Your task to perform on an android device: turn off javascript in the chrome app Image 0: 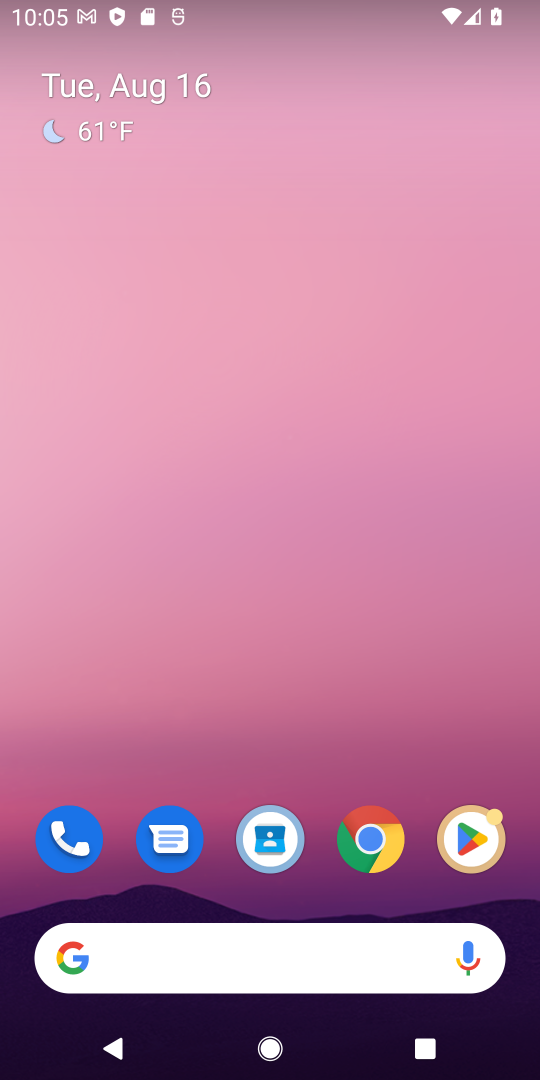
Step 0: click (371, 828)
Your task to perform on an android device: turn off javascript in the chrome app Image 1: 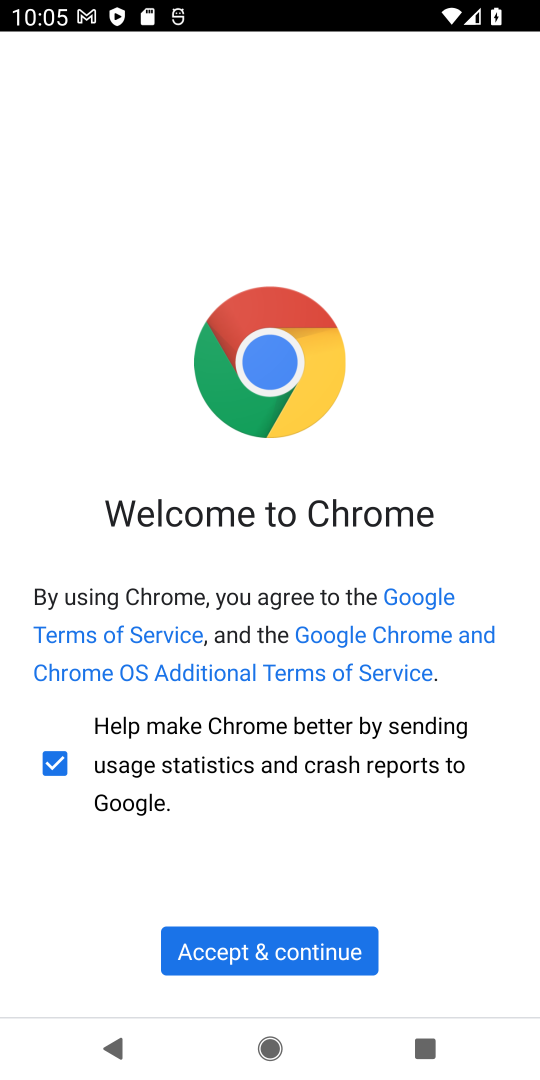
Step 1: click (313, 951)
Your task to perform on an android device: turn off javascript in the chrome app Image 2: 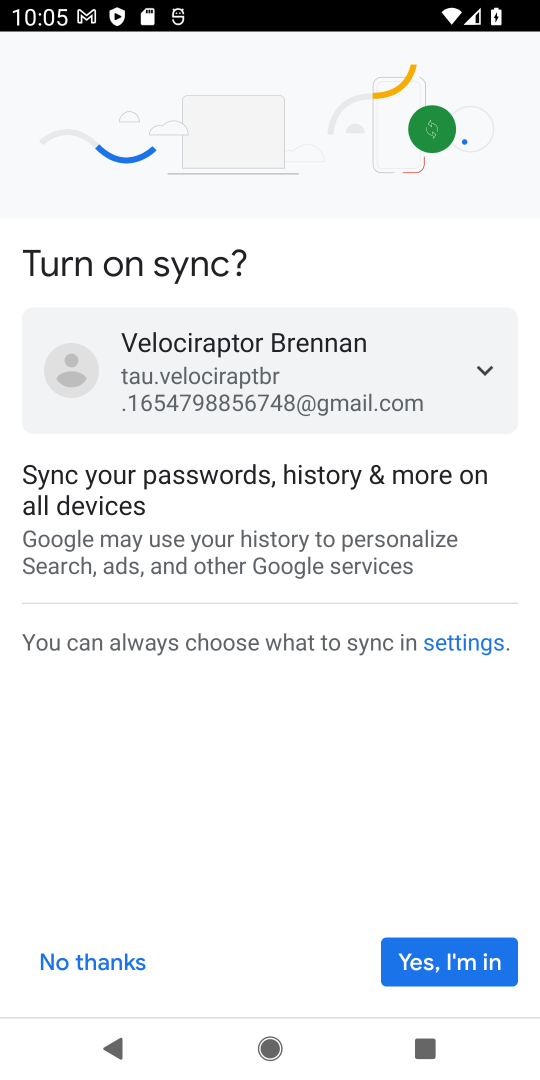
Step 2: click (439, 958)
Your task to perform on an android device: turn off javascript in the chrome app Image 3: 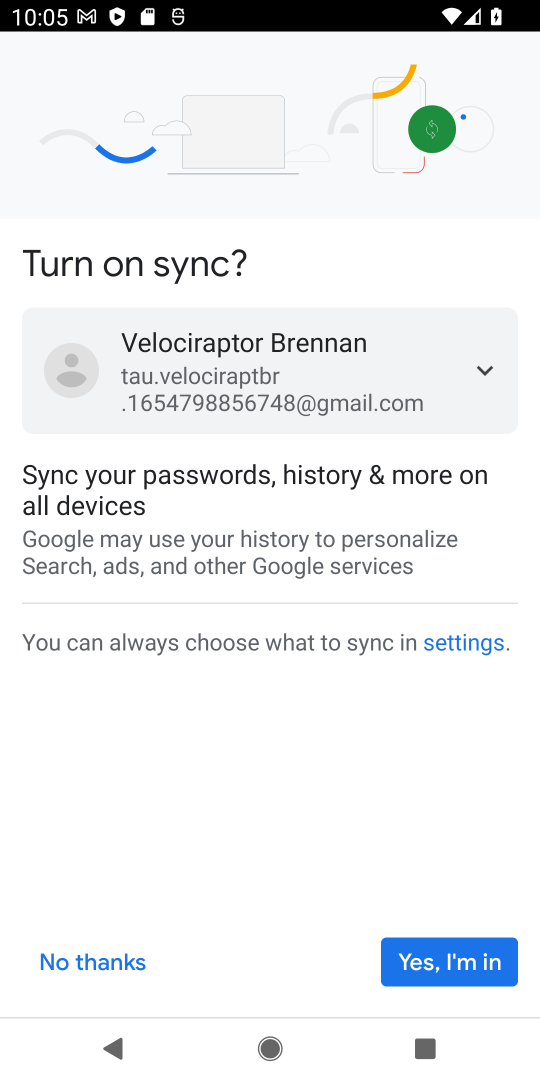
Step 3: click (437, 957)
Your task to perform on an android device: turn off javascript in the chrome app Image 4: 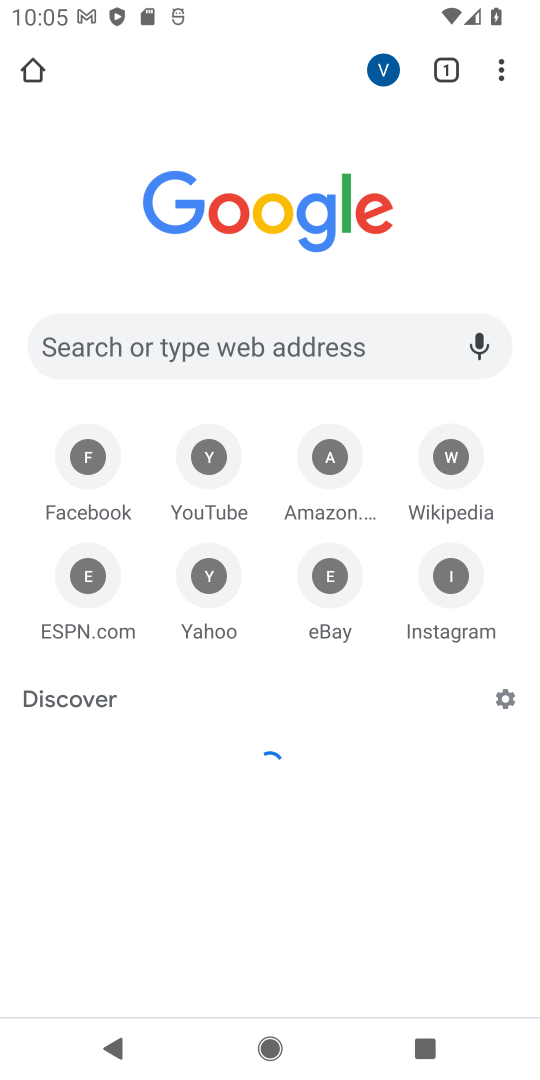
Step 4: click (436, 955)
Your task to perform on an android device: turn off javascript in the chrome app Image 5: 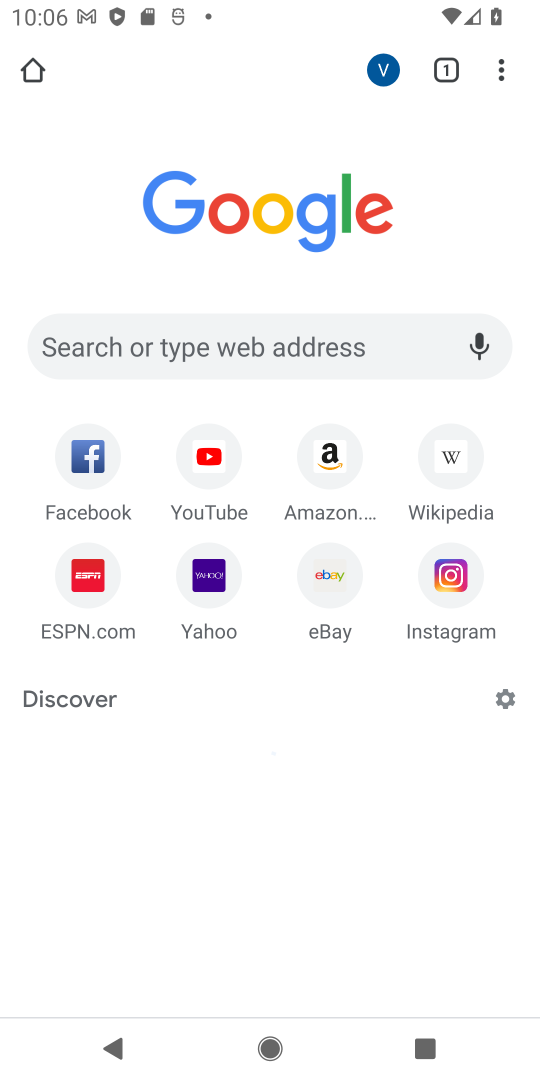
Step 5: click (502, 57)
Your task to perform on an android device: turn off javascript in the chrome app Image 6: 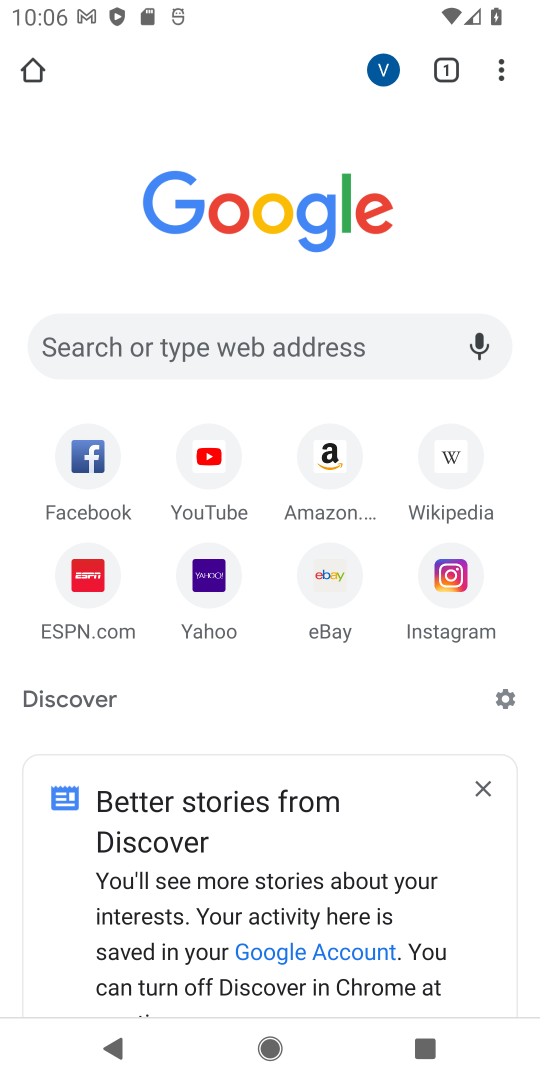
Step 6: click (498, 68)
Your task to perform on an android device: turn off javascript in the chrome app Image 7: 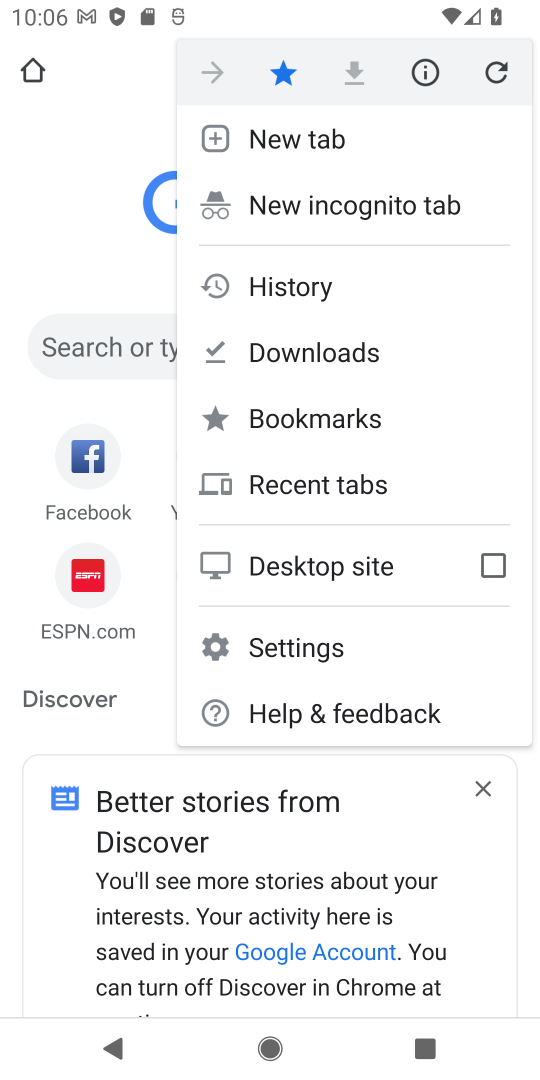
Step 7: click (296, 653)
Your task to perform on an android device: turn off javascript in the chrome app Image 8: 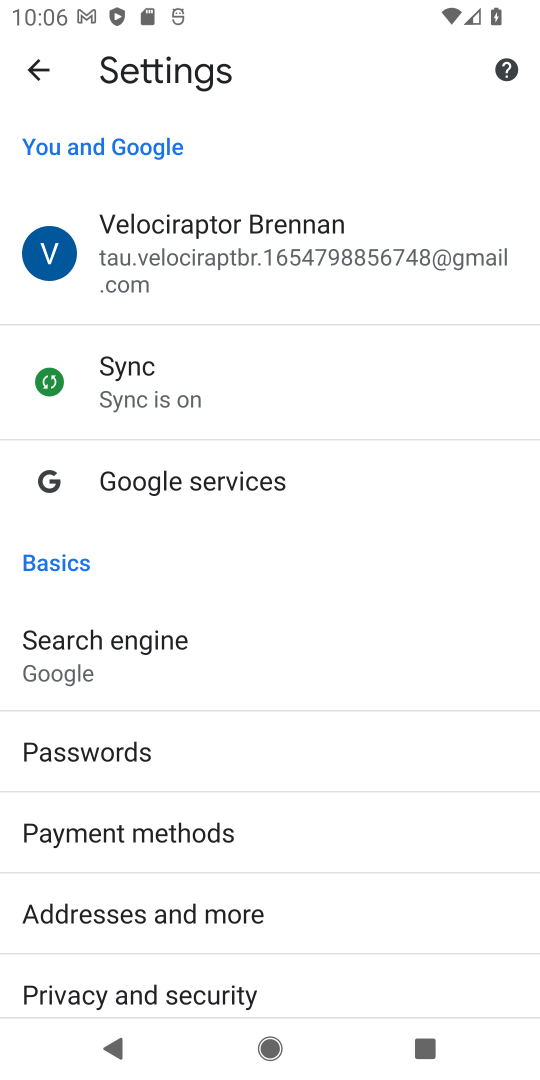
Step 8: drag from (212, 865) to (212, 201)
Your task to perform on an android device: turn off javascript in the chrome app Image 9: 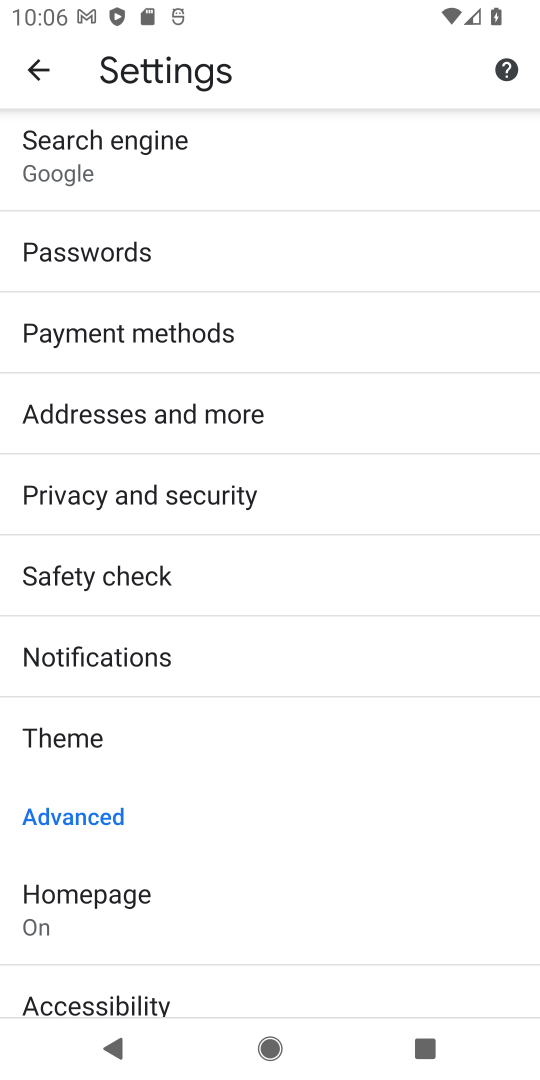
Step 9: drag from (165, 838) to (200, 370)
Your task to perform on an android device: turn off javascript in the chrome app Image 10: 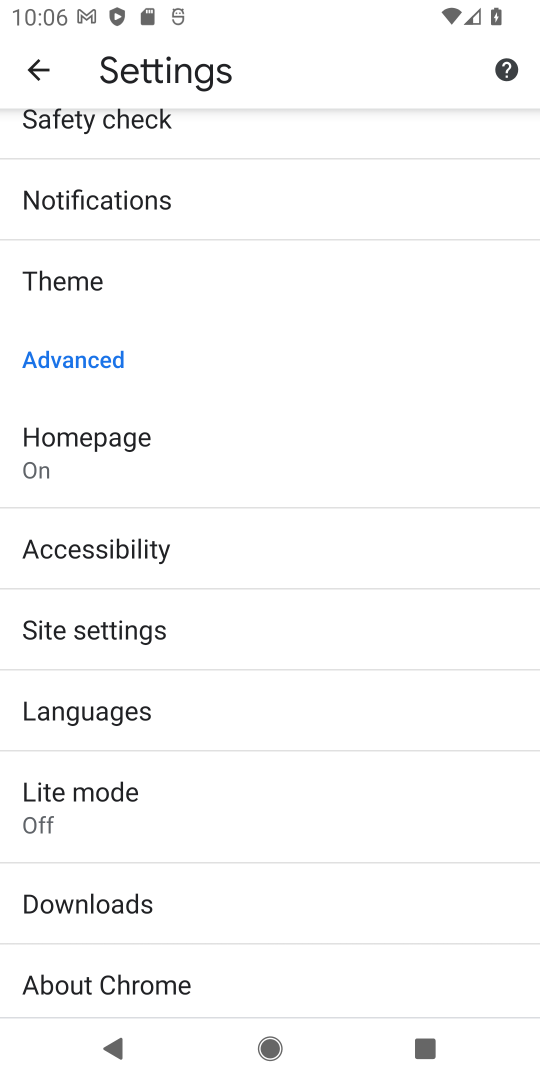
Step 10: click (143, 638)
Your task to perform on an android device: turn off javascript in the chrome app Image 11: 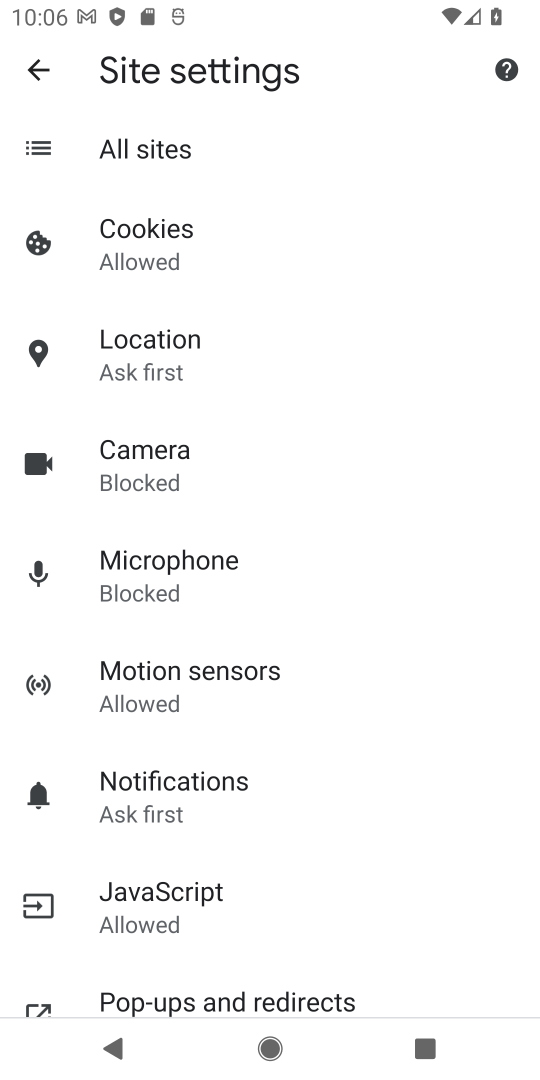
Step 11: click (193, 893)
Your task to perform on an android device: turn off javascript in the chrome app Image 12: 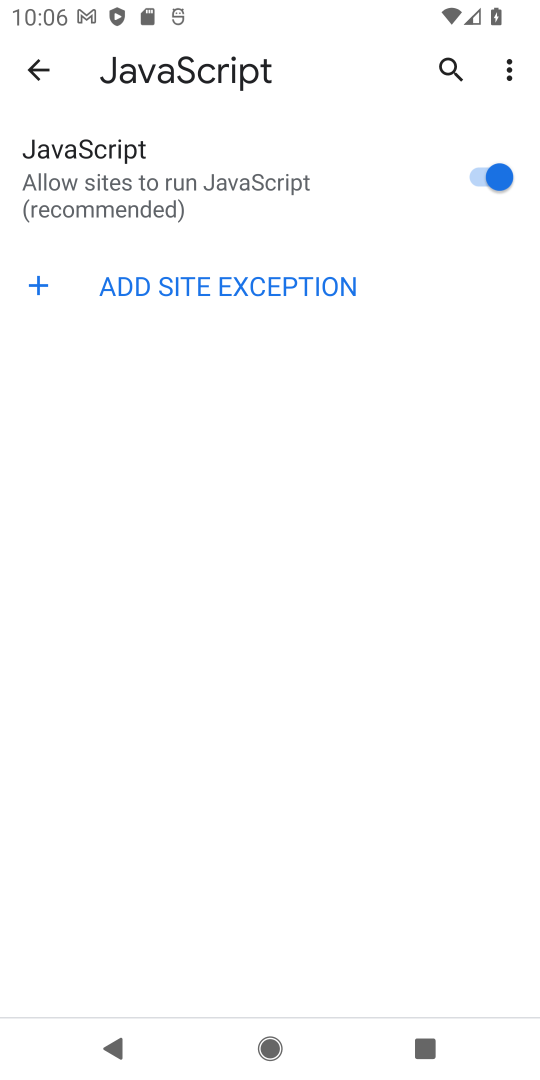
Step 12: click (460, 174)
Your task to perform on an android device: turn off javascript in the chrome app Image 13: 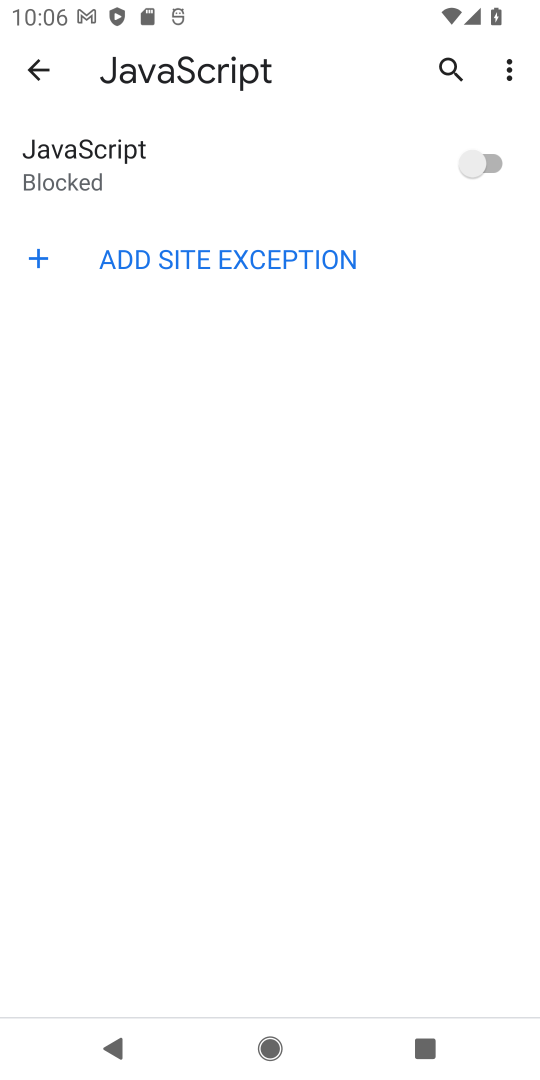
Step 13: task complete